Your task to perform on an android device: View the shopping cart on walmart. Search for "bose soundsport free" on walmart, select the first entry, and add it to the cart. Image 0: 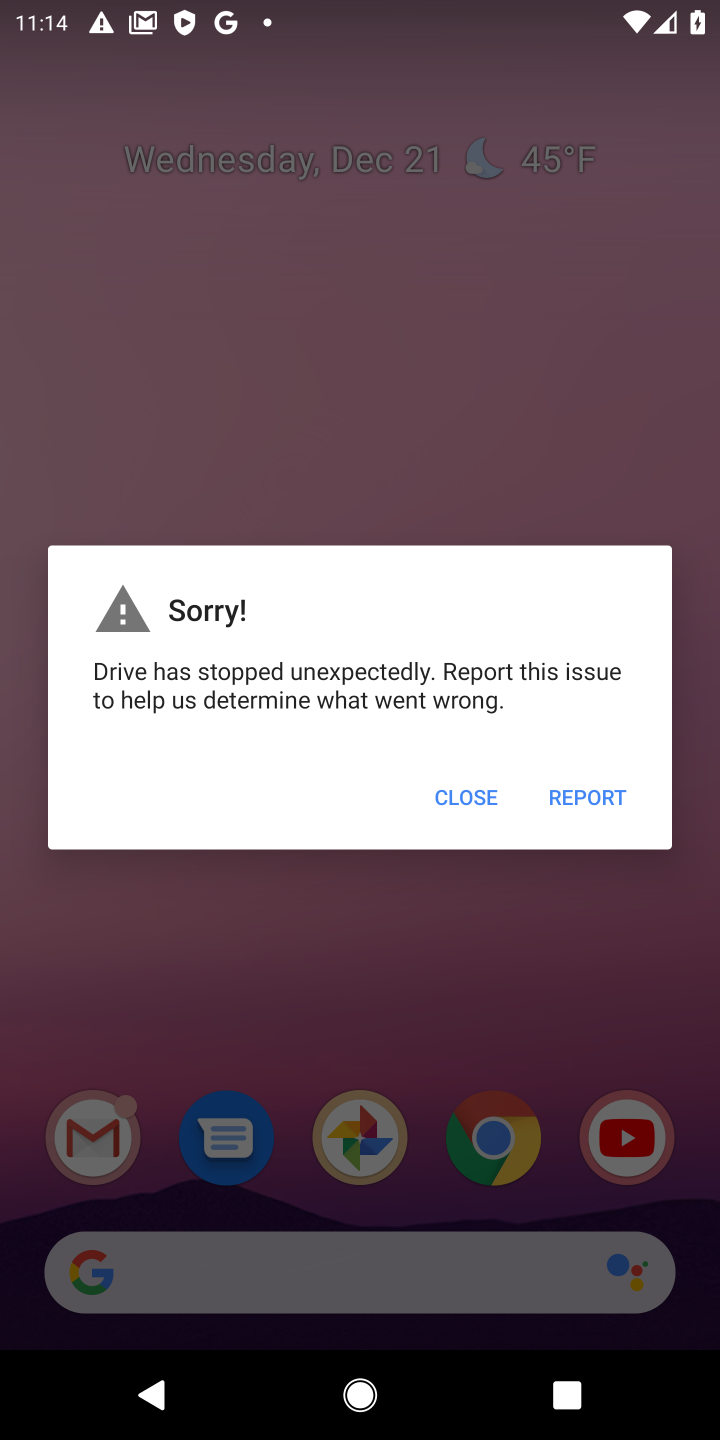
Step 0: press home button
Your task to perform on an android device: View the shopping cart on walmart. Search for "bose soundsport free" on walmart, select the first entry, and add it to the cart. Image 1: 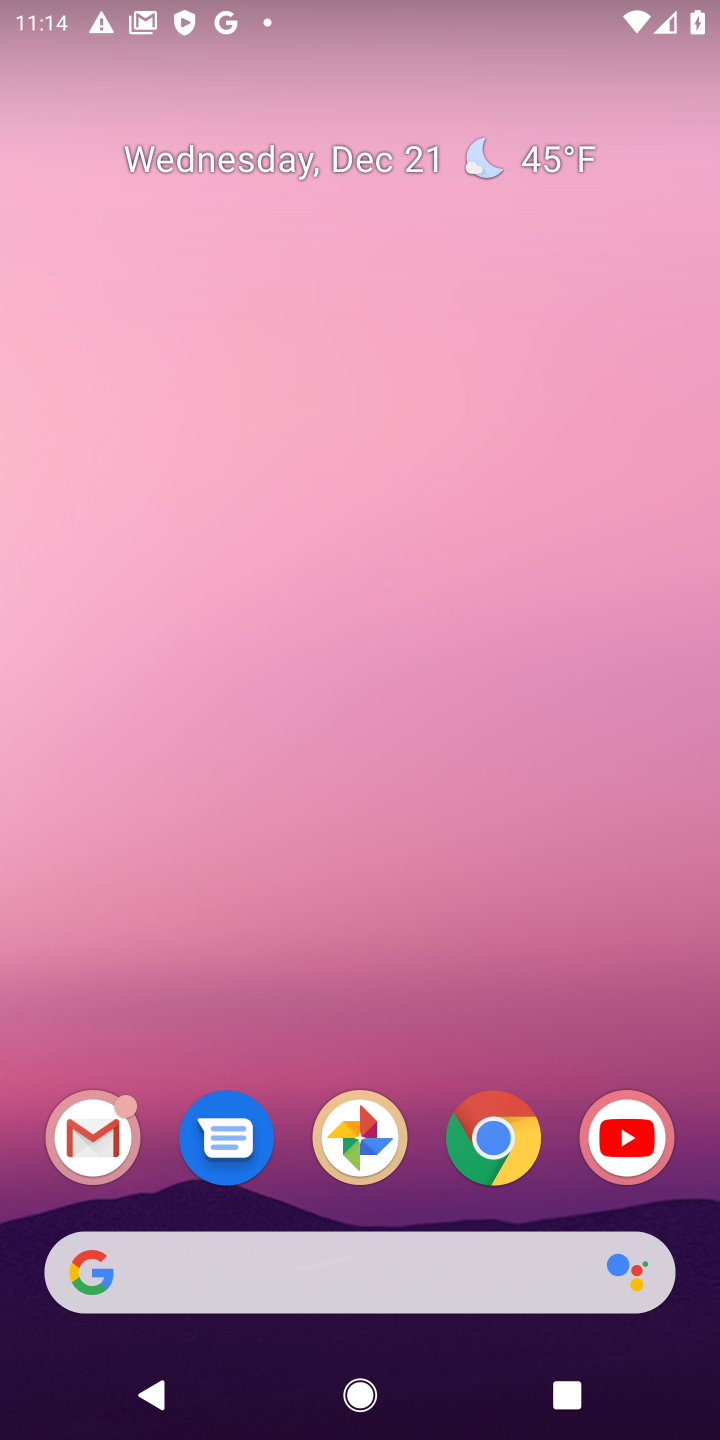
Step 1: click (482, 1137)
Your task to perform on an android device: View the shopping cart on walmart. Search for "bose soundsport free" on walmart, select the first entry, and add it to the cart. Image 2: 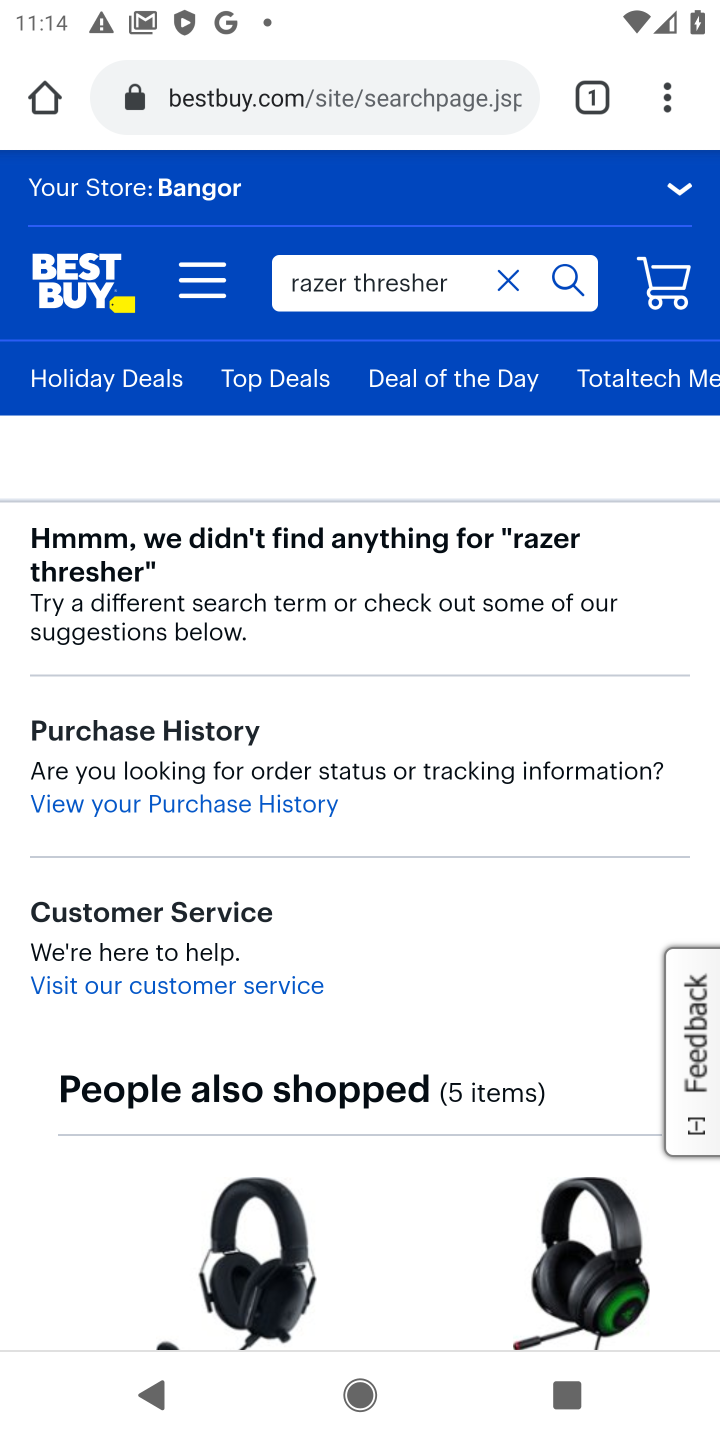
Step 2: click (232, 100)
Your task to perform on an android device: View the shopping cart on walmart. Search for "bose soundsport free" on walmart, select the first entry, and add it to the cart. Image 3: 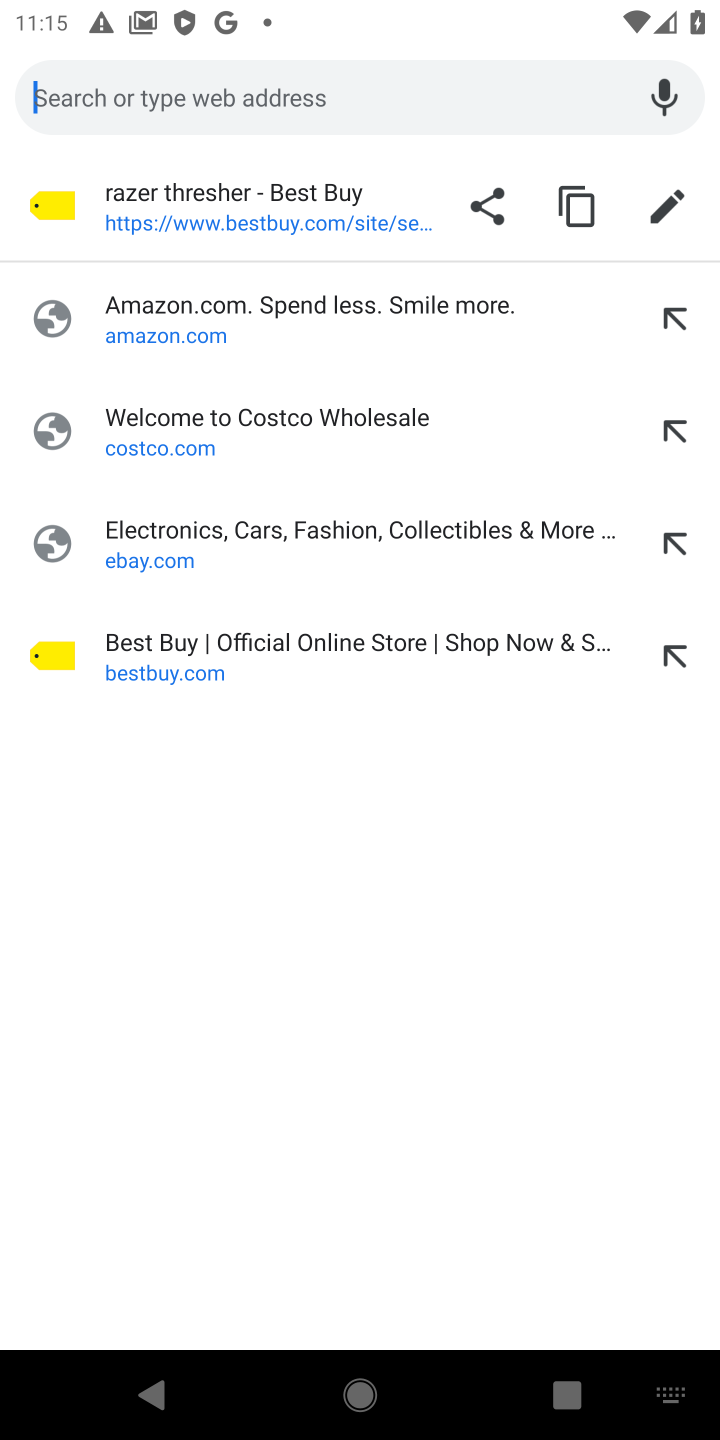
Step 3: type "walmart.com"
Your task to perform on an android device: View the shopping cart on walmart. Search for "bose soundsport free" on walmart, select the first entry, and add it to the cart. Image 4: 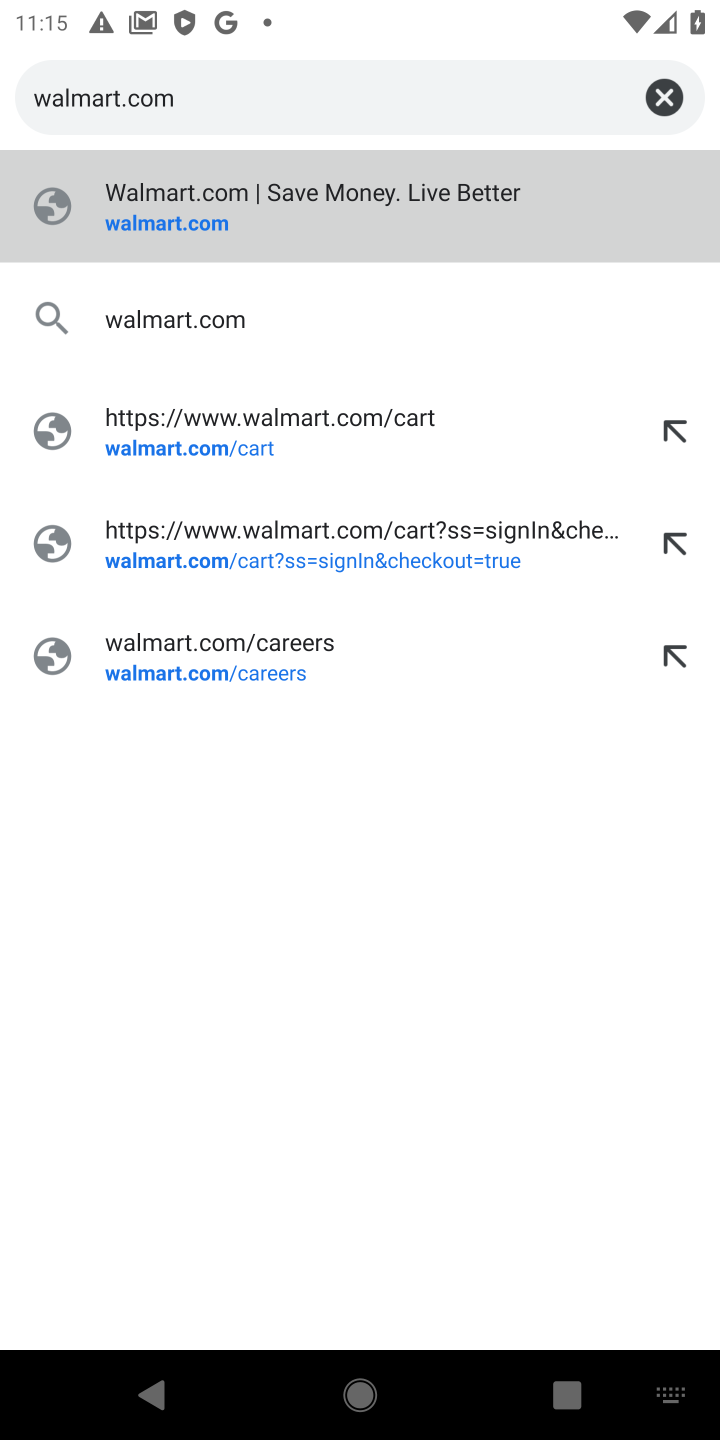
Step 4: click (144, 233)
Your task to perform on an android device: View the shopping cart on walmart. Search for "bose soundsport free" on walmart, select the first entry, and add it to the cart. Image 5: 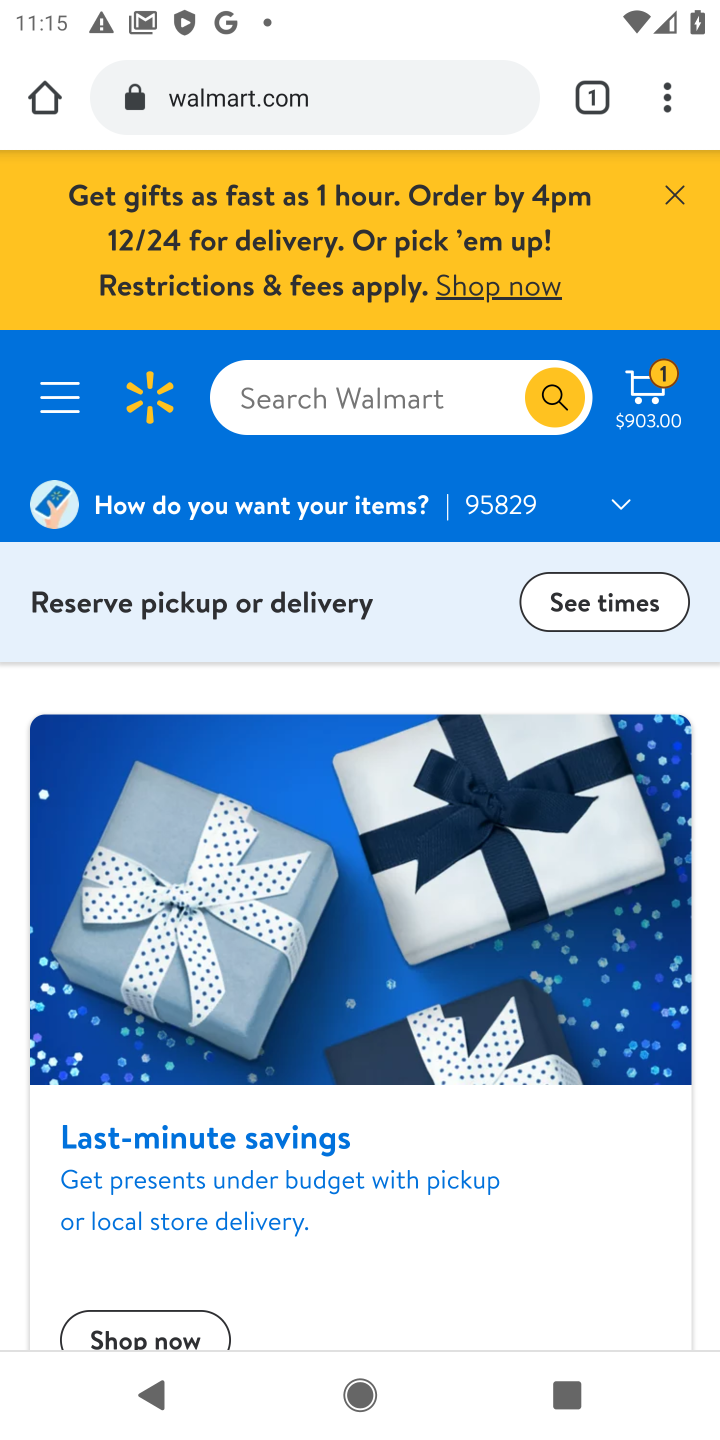
Step 5: click (645, 388)
Your task to perform on an android device: View the shopping cart on walmart. Search for "bose soundsport free" on walmart, select the first entry, and add it to the cart. Image 6: 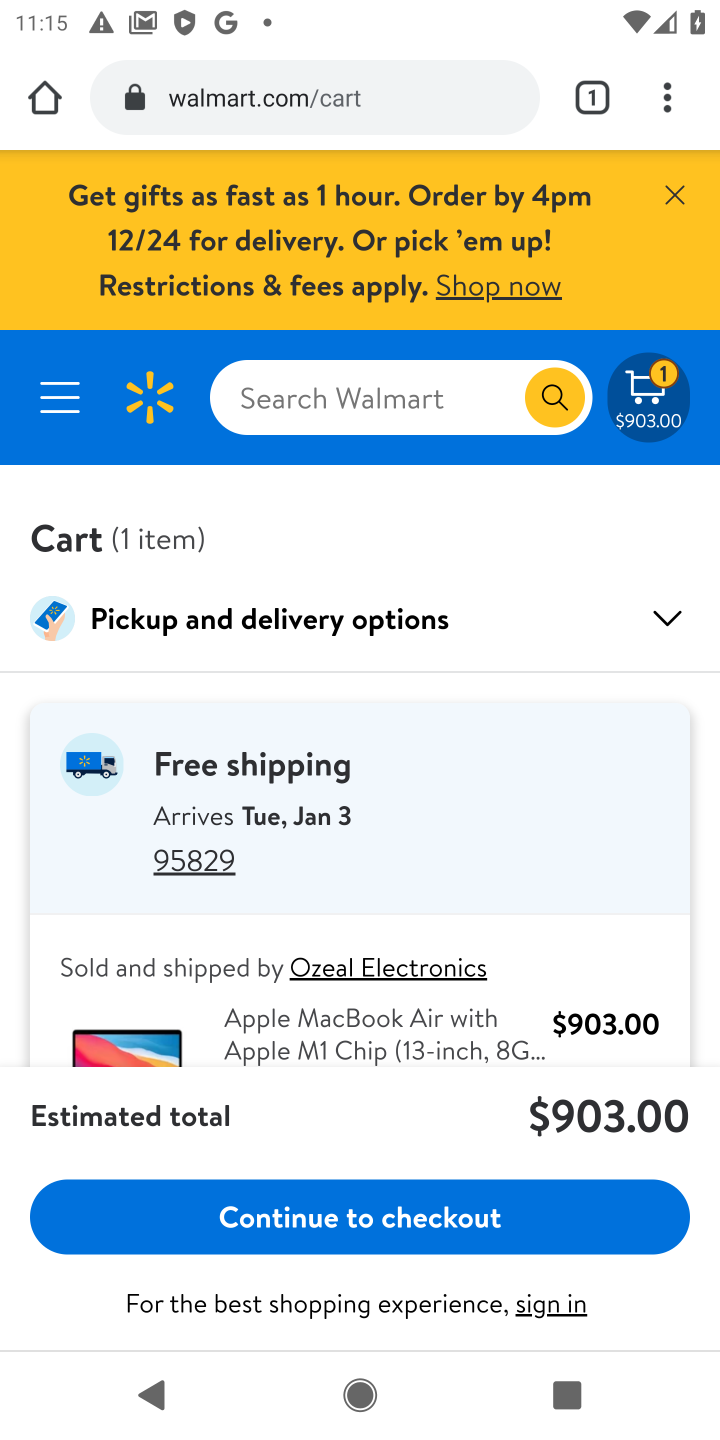
Step 6: drag from (540, 727) to (535, 380)
Your task to perform on an android device: View the shopping cart on walmart. Search for "bose soundsport free" on walmart, select the first entry, and add it to the cart. Image 7: 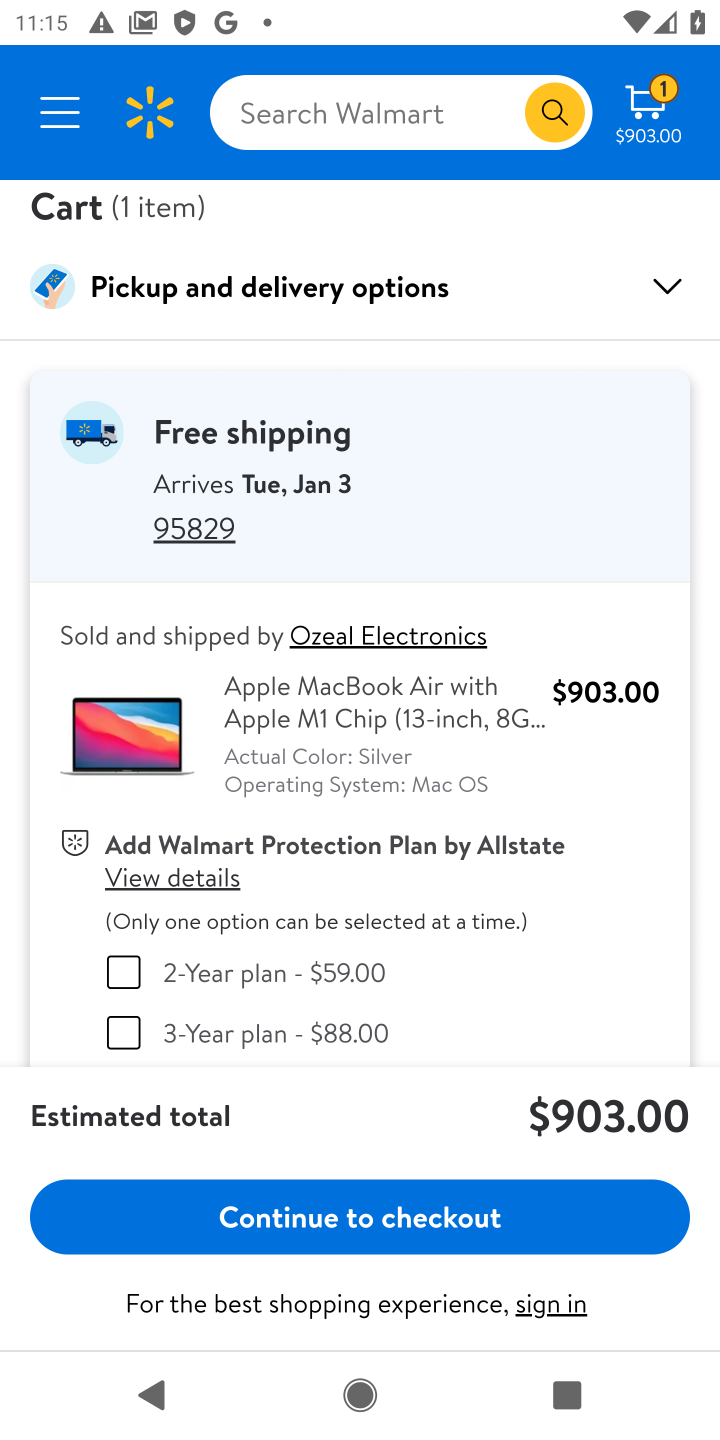
Step 7: click (343, 107)
Your task to perform on an android device: View the shopping cart on walmart. Search for "bose soundsport free" on walmart, select the first entry, and add it to the cart. Image 8: 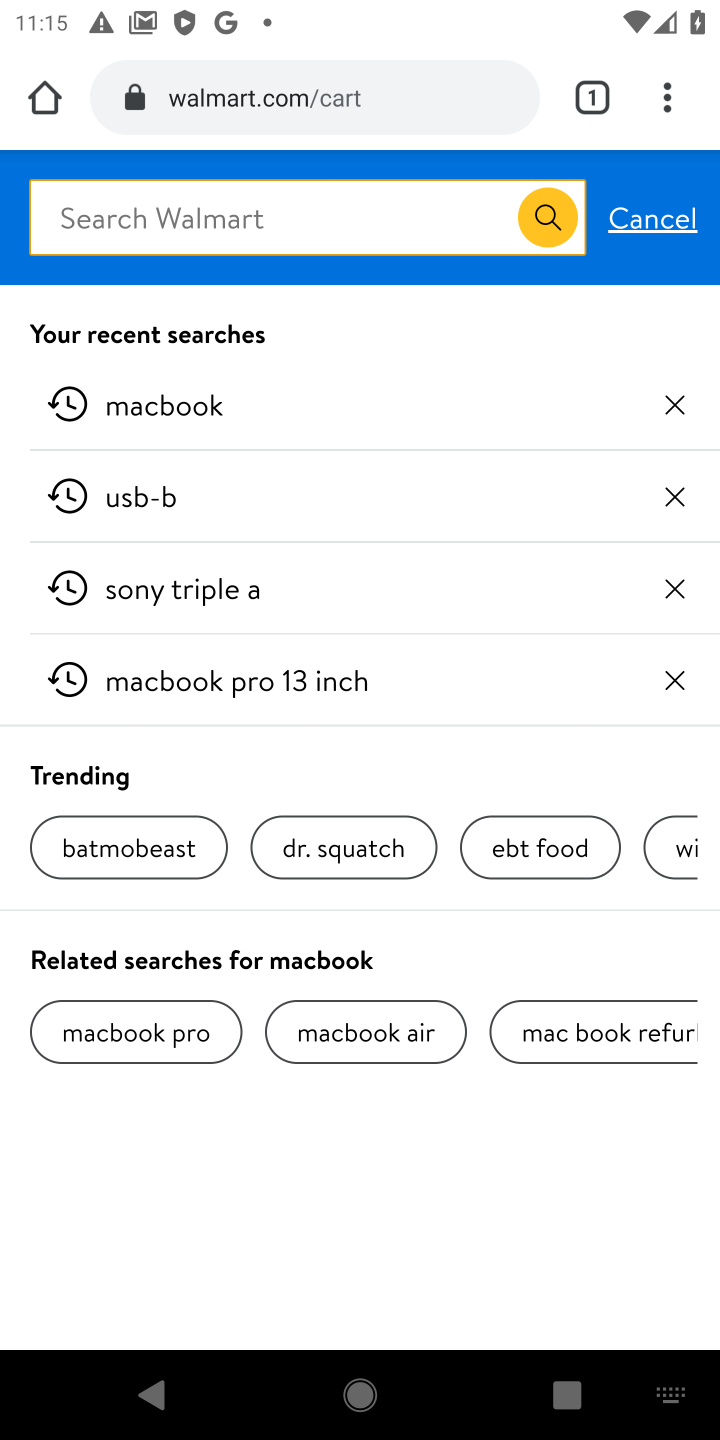
Step 8: type "bose soundsport free"
Your task to perform on an android device: View the shopping cart on walmart. Search for "bose soundsport free" on walmart, select the first entry, and add it to the cart. Image 9: 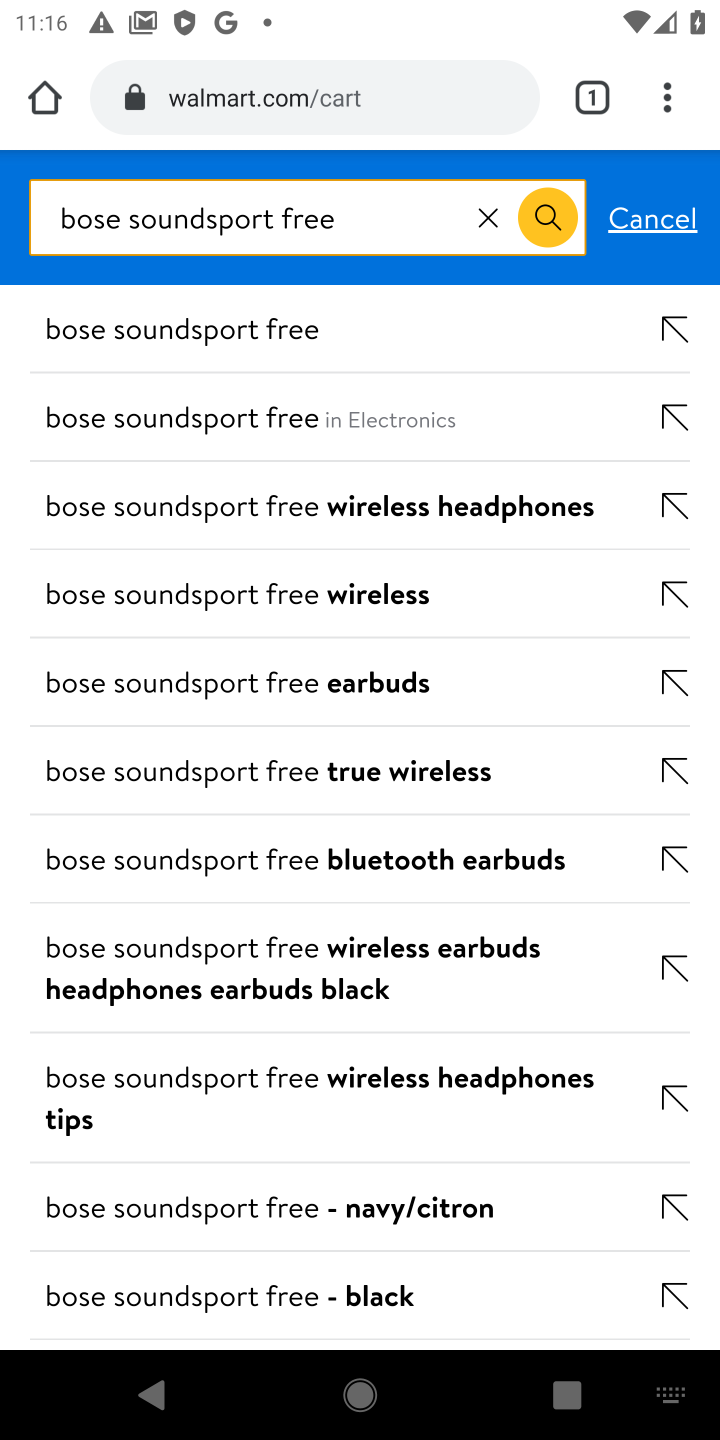
Step 9: click (151, 339)
Your task to perform on an android device: View the shopping cart on walmart. Search for "bose soundsport free" on walmart, select the first entry, and add it to the cart. Image 10: 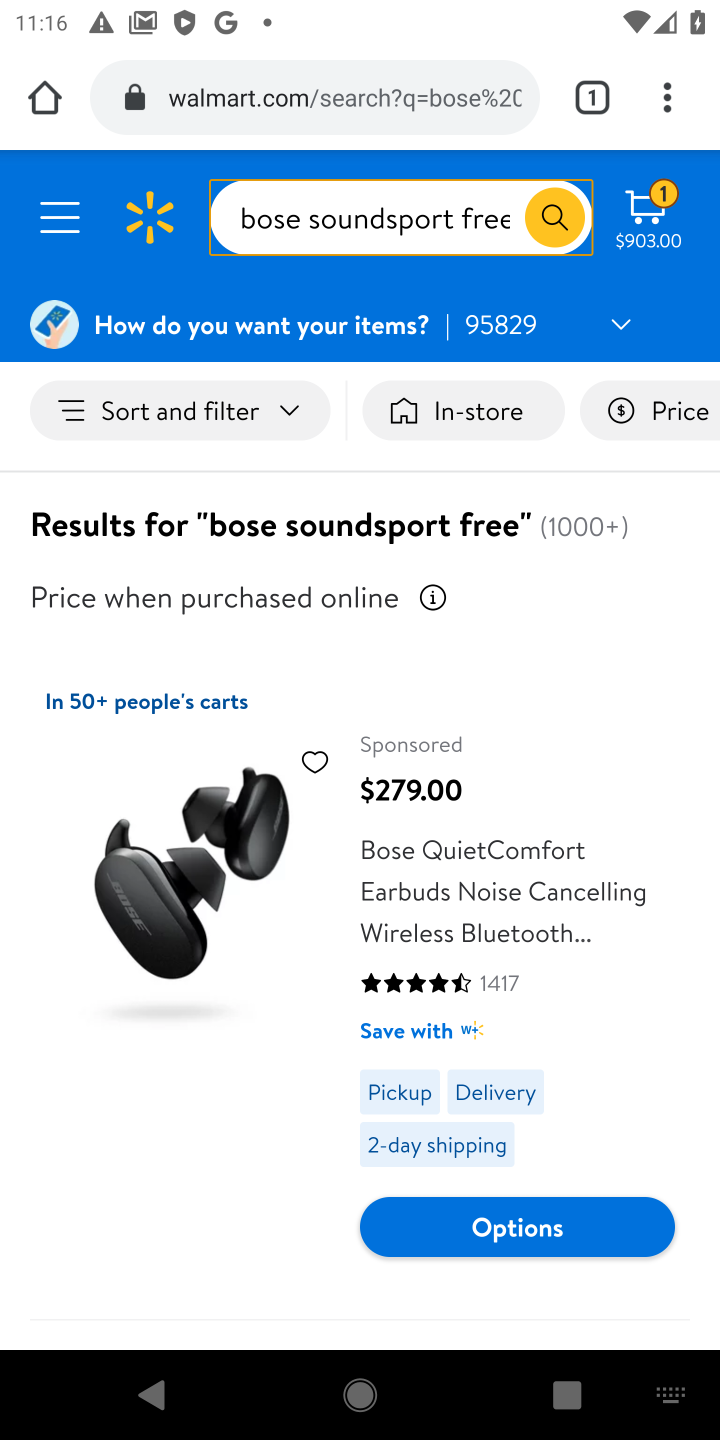
Step 10: task complete